Your task to perform on an android device: star an email in the gmail app Image 0: 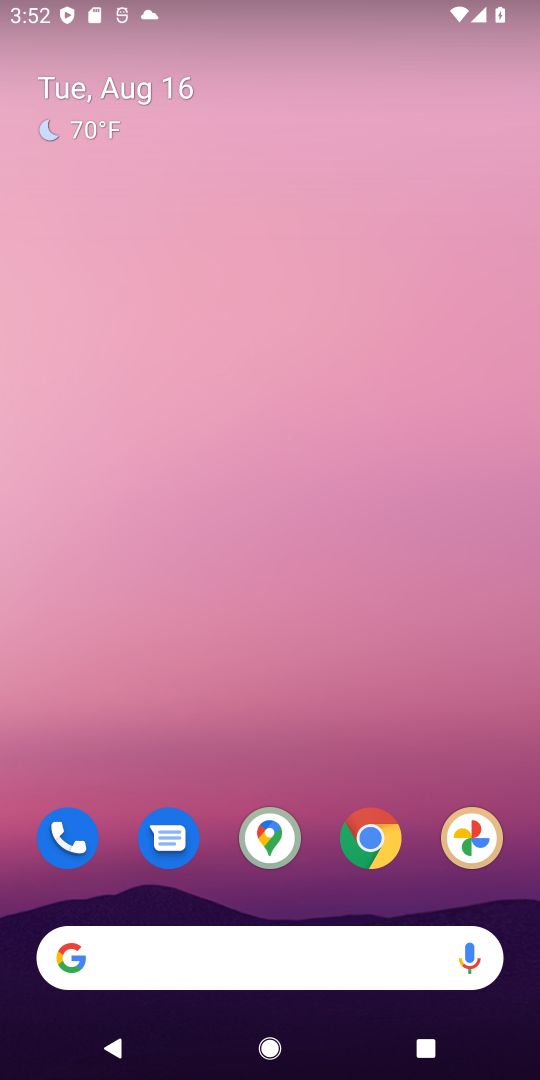
Step 0: drag from (293, 944) to (239, 23)
Your task to perform on an android device: star an email in the gmail app Image 1: 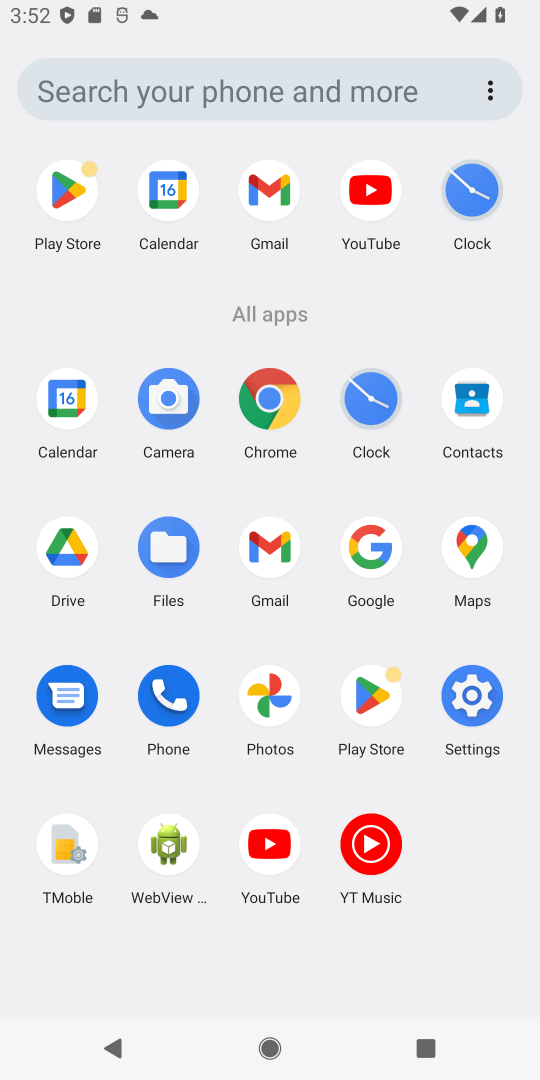
Step 1: click (269, 554)
Your task to perform on an android device: star an email in the gmail app Image 2: 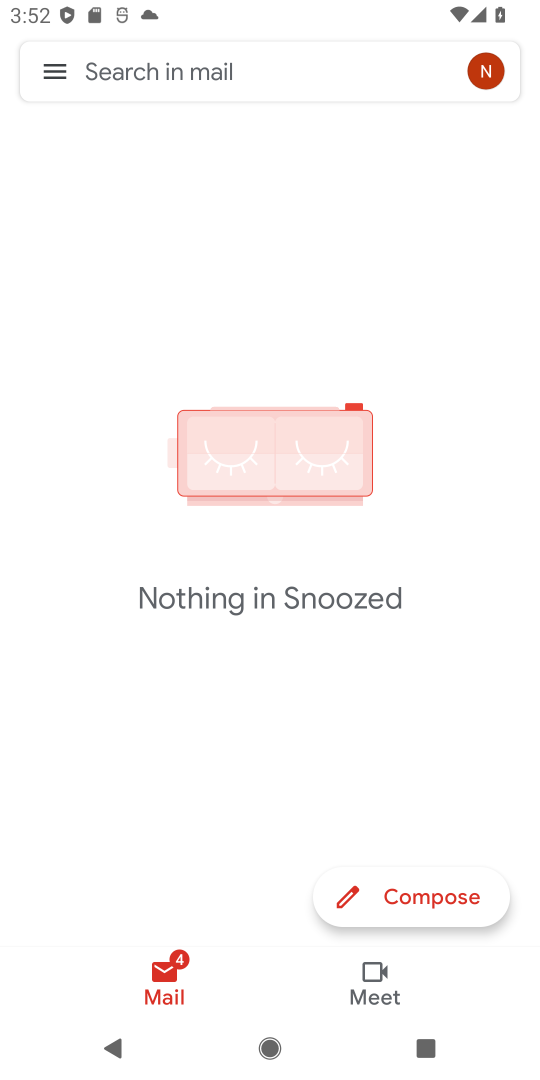
Step 2: click (67, 102)
Your task to perform on an android device: star an email in the gmail app Image 3: 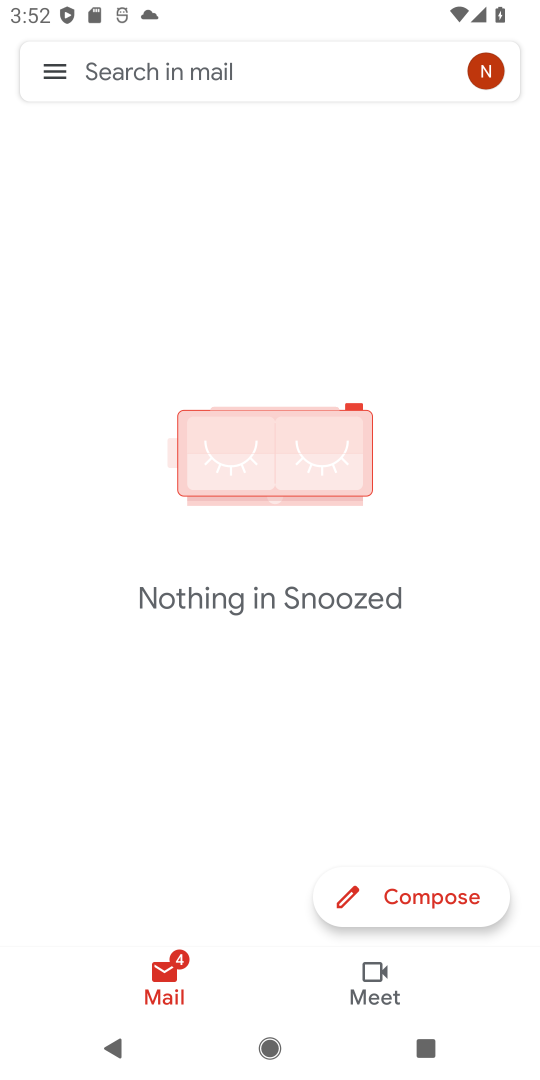
Step 3: click (54, 65)
Your task to perform on an android device: star an email in the gmail app Image 4: 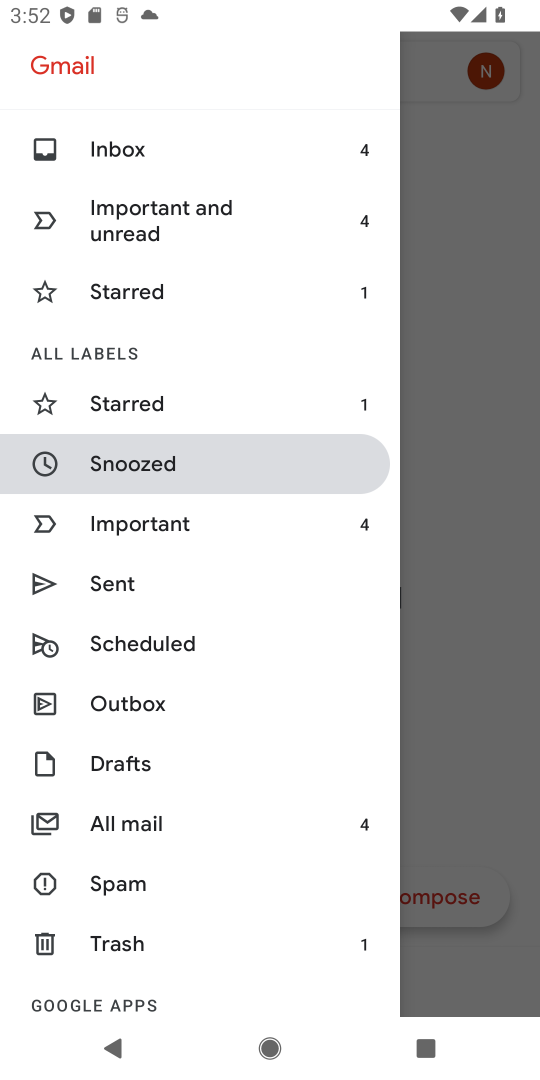
Step 4: click (167, 839)
Your task to perform on an android device: star an email in the gmail app Image 5: 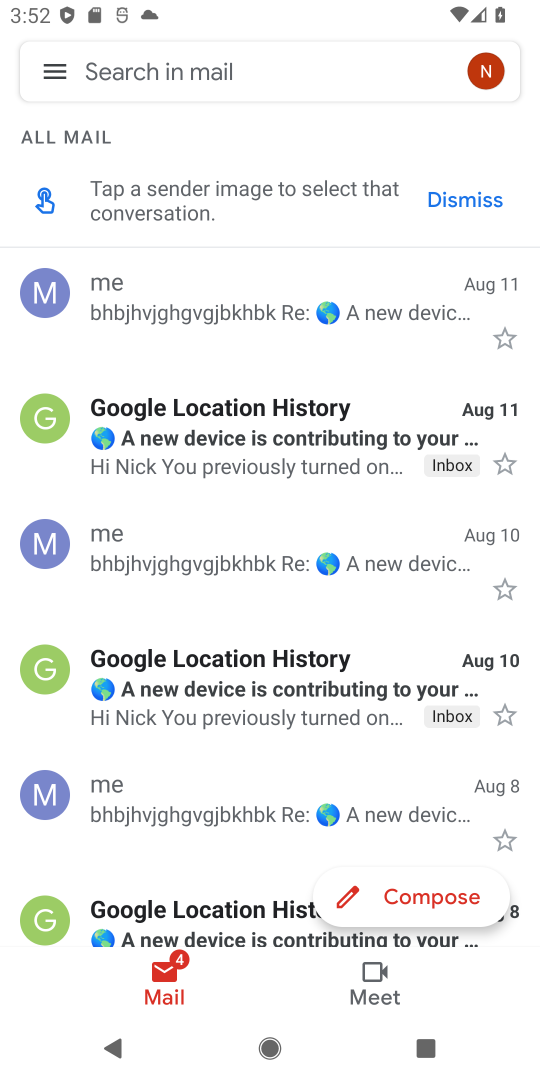
Step 5: click (503, 343)
Your task to perform on an android device: star an email in the gmail app Image 6: 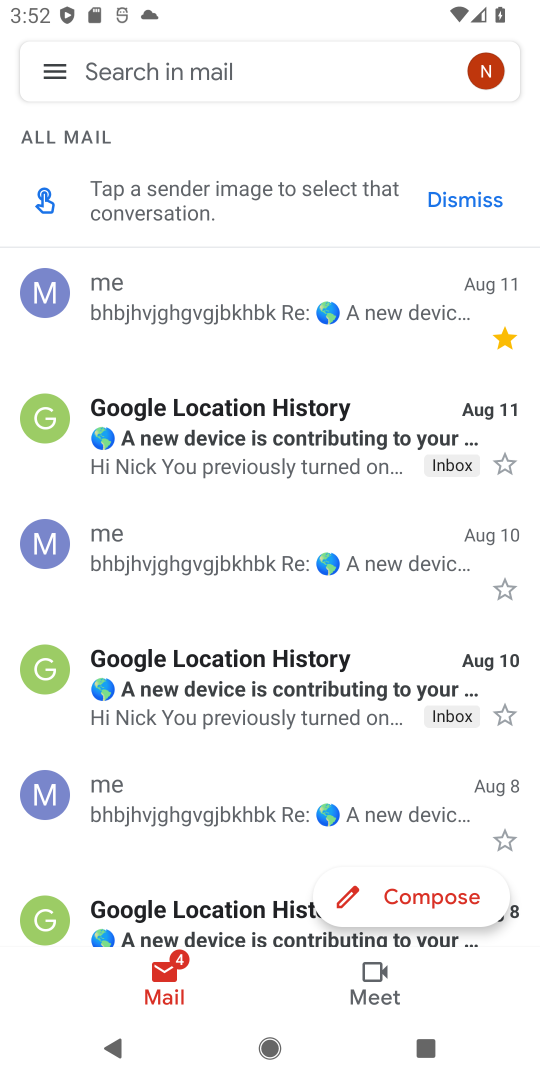
Step 6: task complete